Your task to perform on an android device: Open Chrome and go to settings Image 0: 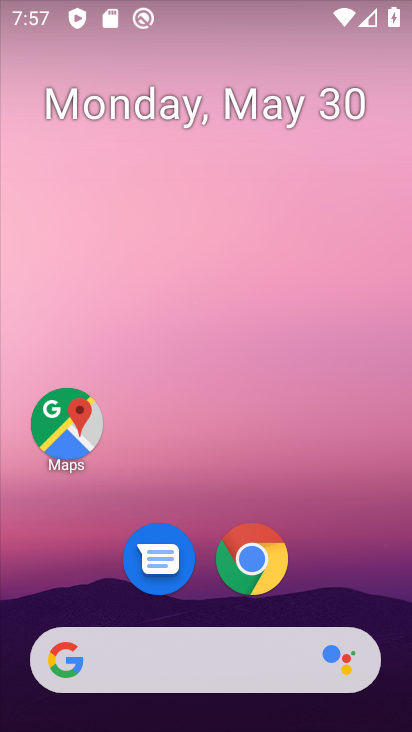
Step 0: click (255, 552)
Your task to perform on an android device: Open Chrome and go to settings Image 1: 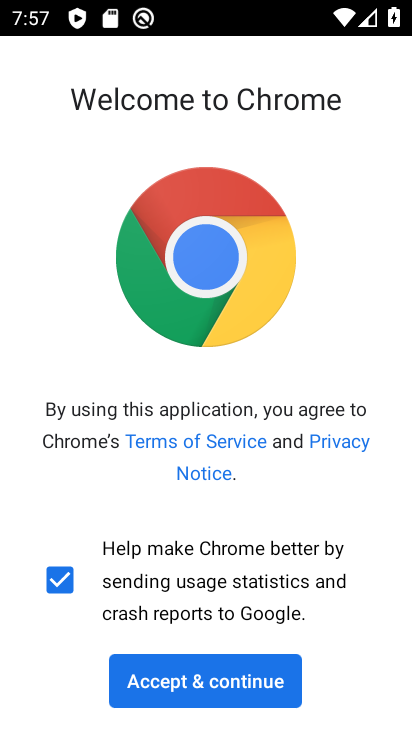
Step 1: click (167, 677)
Your task to perform on an android device: Open Chrome and go to settings Image 2: 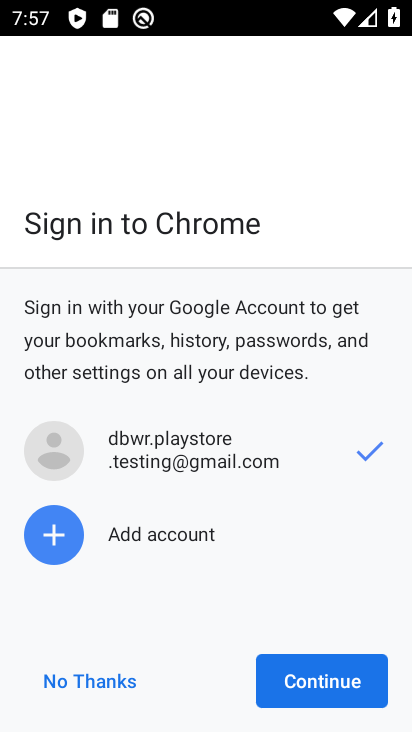
Step 2: click (282, 687)
Your task to perform on an android device: Open Chrome and go to settings Image 3: 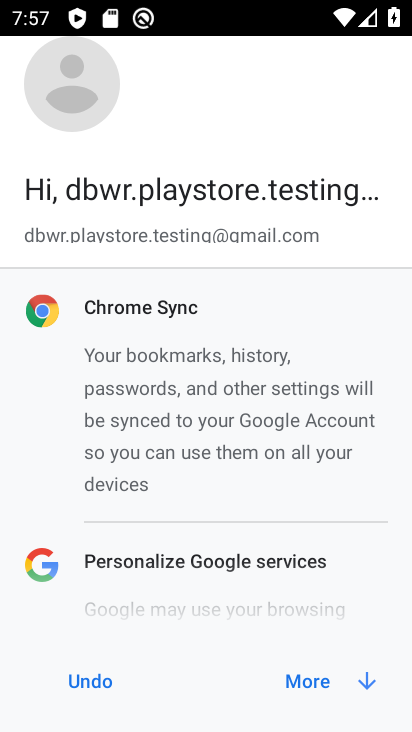
Step 3: click (300, 688)
Your task to perform on an android device: Open Chrome and go to settings Image 4: 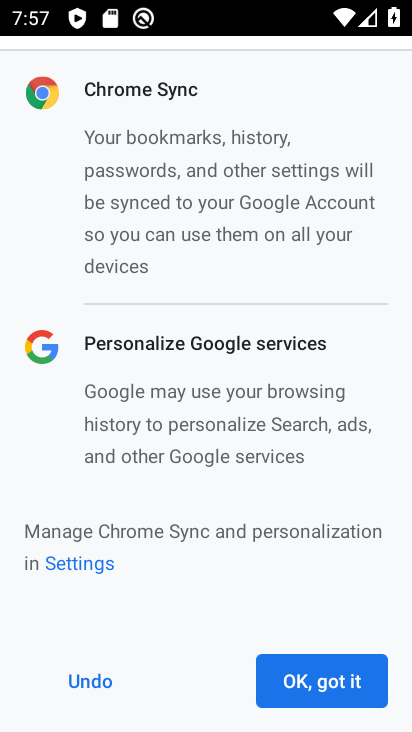
Step 4: click (315, 678)
Your task to perform on an android device: Open Chrome and go to settings Image 5: 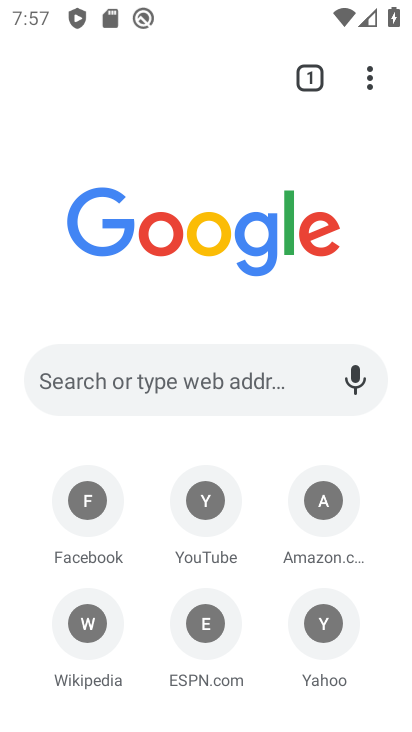
Step 5: task complete